Your task to perform on an android device: move a message to another label in the gmail app Image 0: 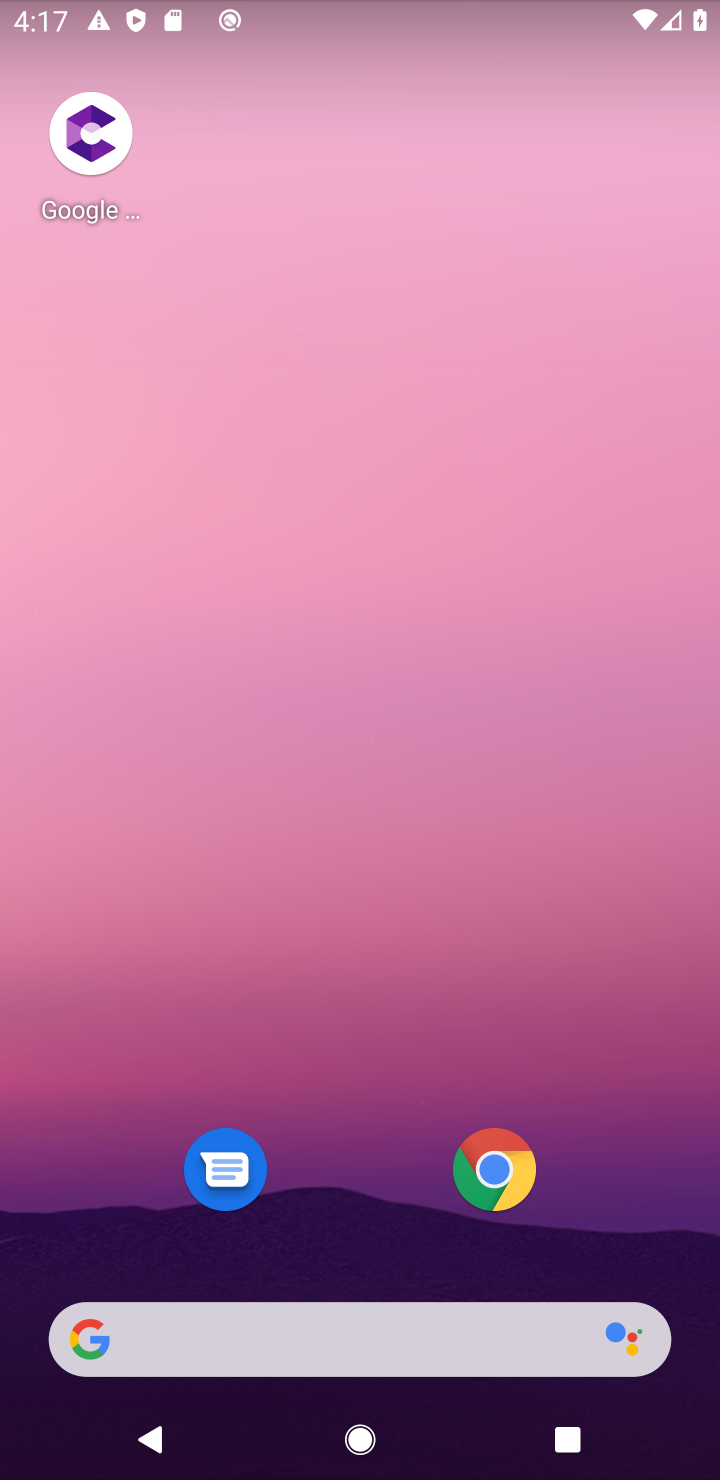
Step 0: drag from (332, 1294) to (427, 225)
Your task to perform on an android device: move a message to another label in the gmail app Image 1: 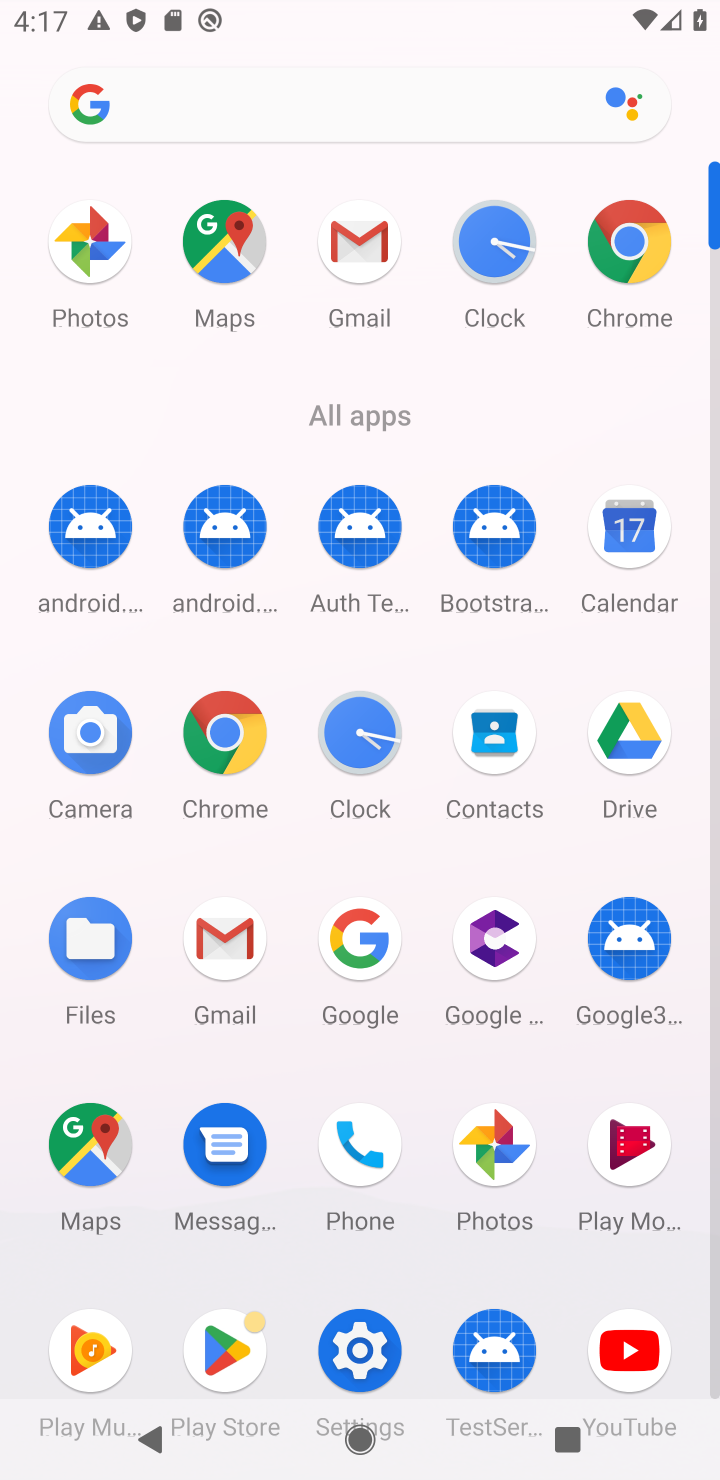
Step 1: click (362, 245)
Your task to perform on an android device: move a message to another label in the gmail app Image 2: 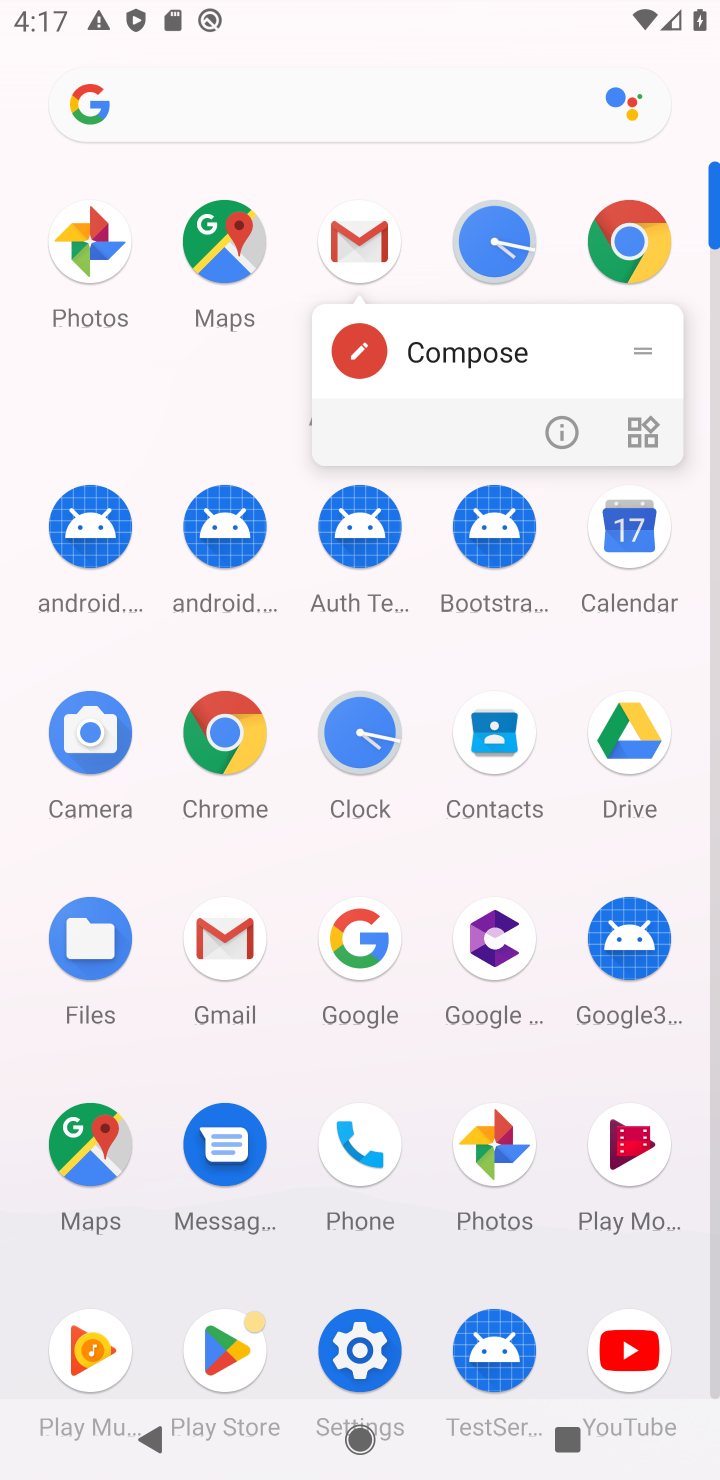
Step 2: click (362, 242)
Your task to perform on an android device: move a message to another label in the gmail app Image 3: 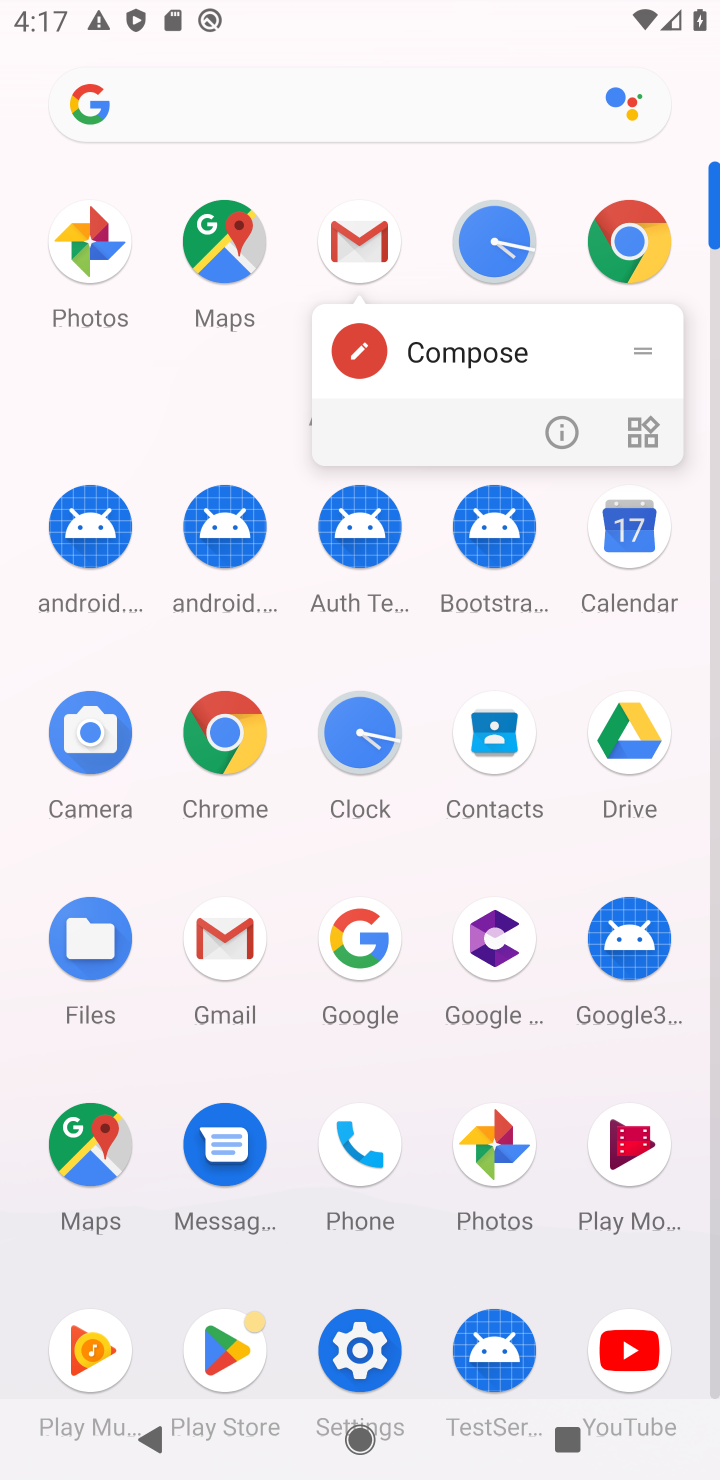
Step 3: click (362, 238)
Your task to perform on an android device: move a message to another label in the gmail app Image 4: 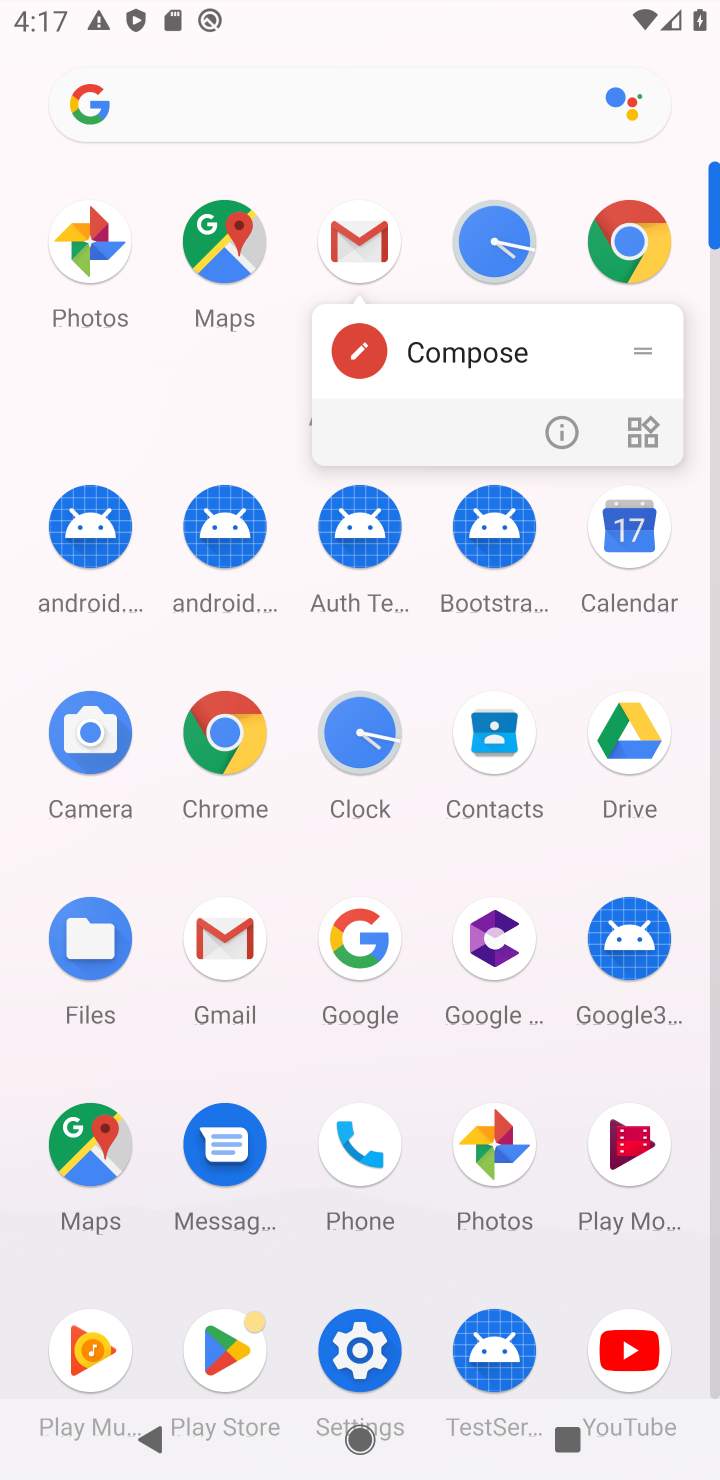
Step 4: click (362, 238)
Your task to perform on an android device: move a message to another label in the gmail app Image 5: 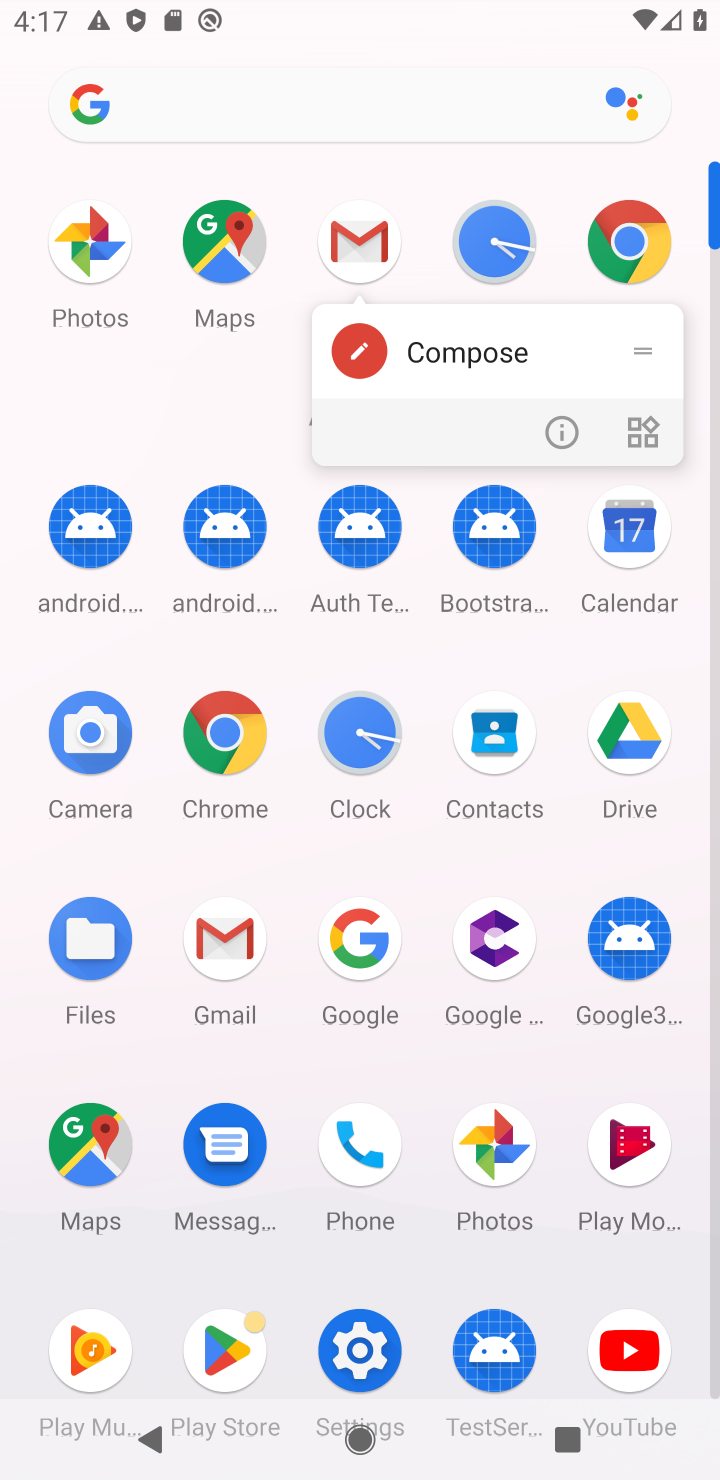
Step 5: click (362, 236)
Your task to perform on an android device: move a message to another label in the gmail app Image 6: 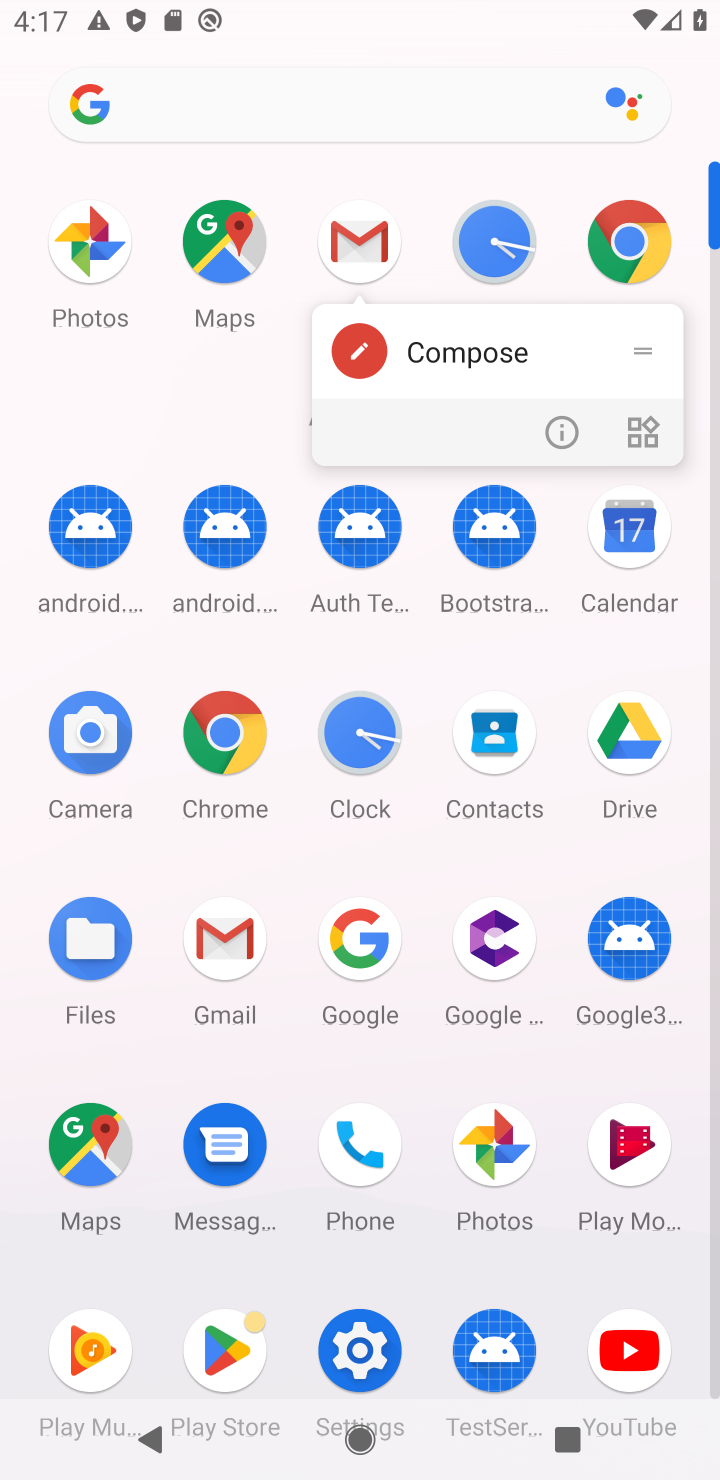
Step 6: click (362, 236)
Your task to perform on an android device: move a message to another label in the gmail app Image 7: 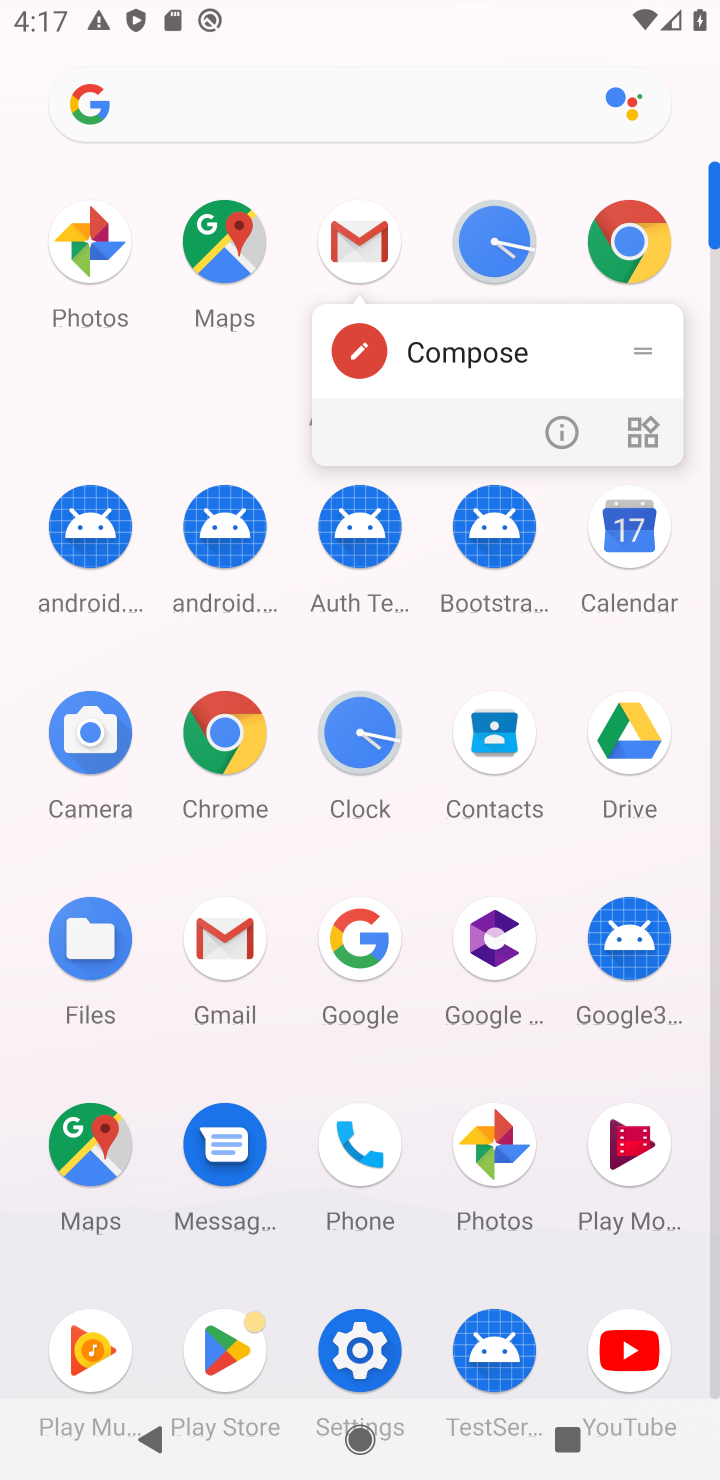
Step 7: click (362, 235)
Your task to perform on an android device: move a message to another label in the gmail app Image 8: 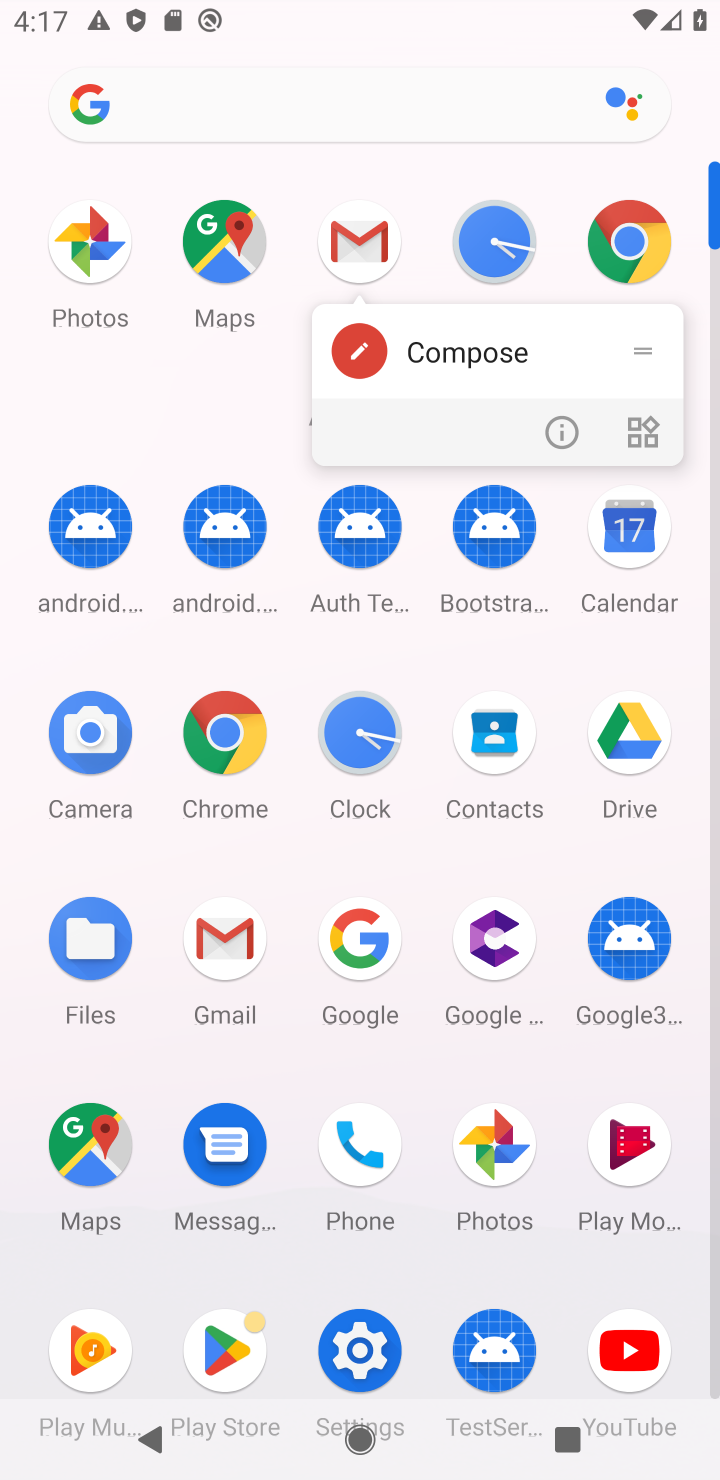
Step 8: click (362, 235)
Your task to perform on an android device: move a message to another label in the gmail app Image 9: 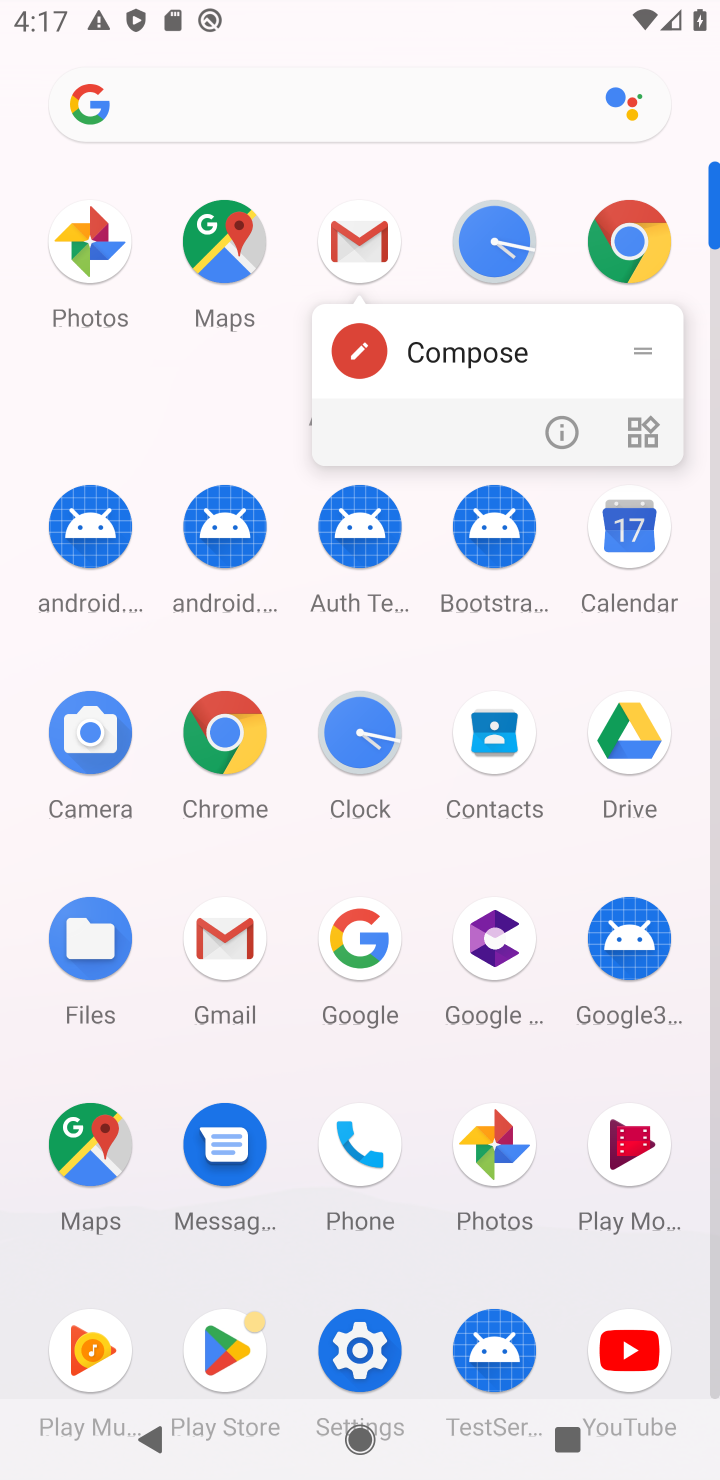
Step 9: click (362, 235)
Your task to perform on an android device: move a message to another label in the gmail app Image 10: 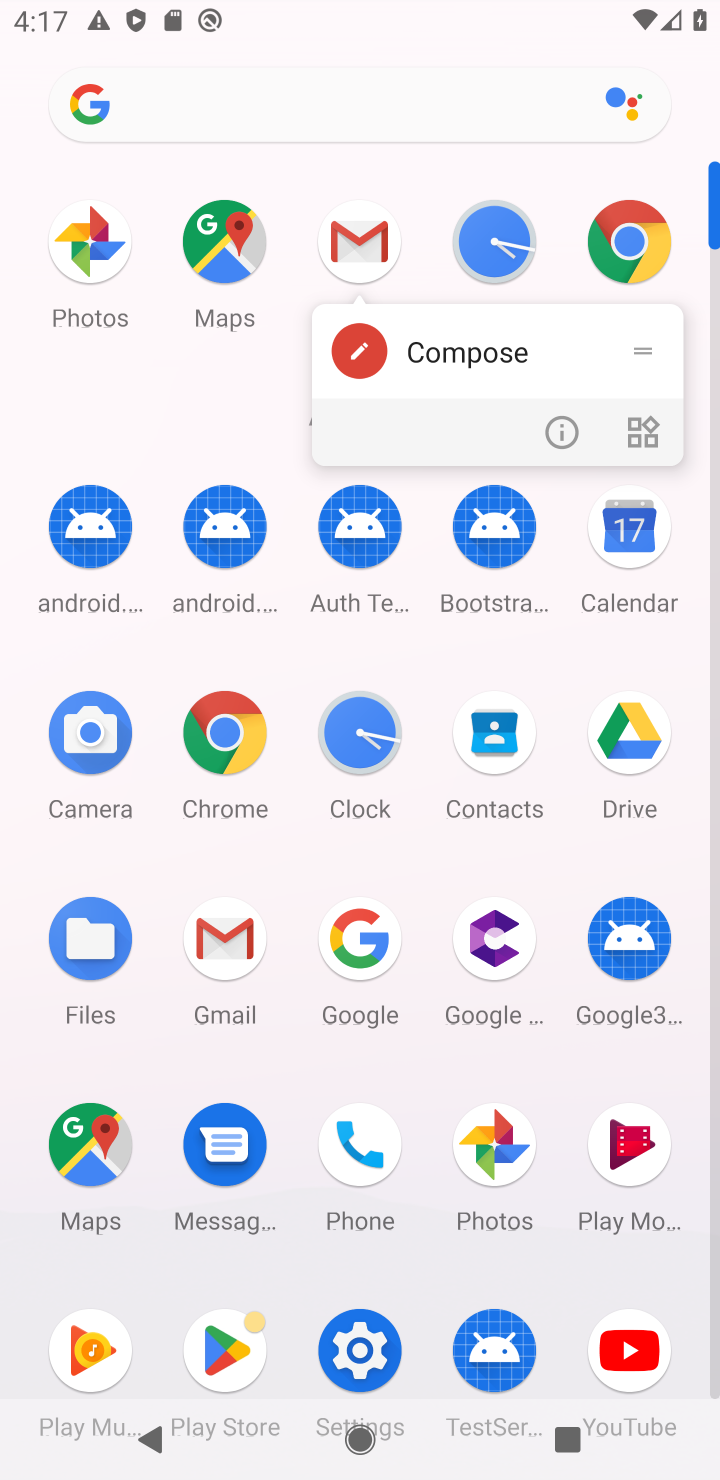
Step 10: click (362, 235)
Your task to perform on an android device: move a message to another label in the gmail app Image 11: 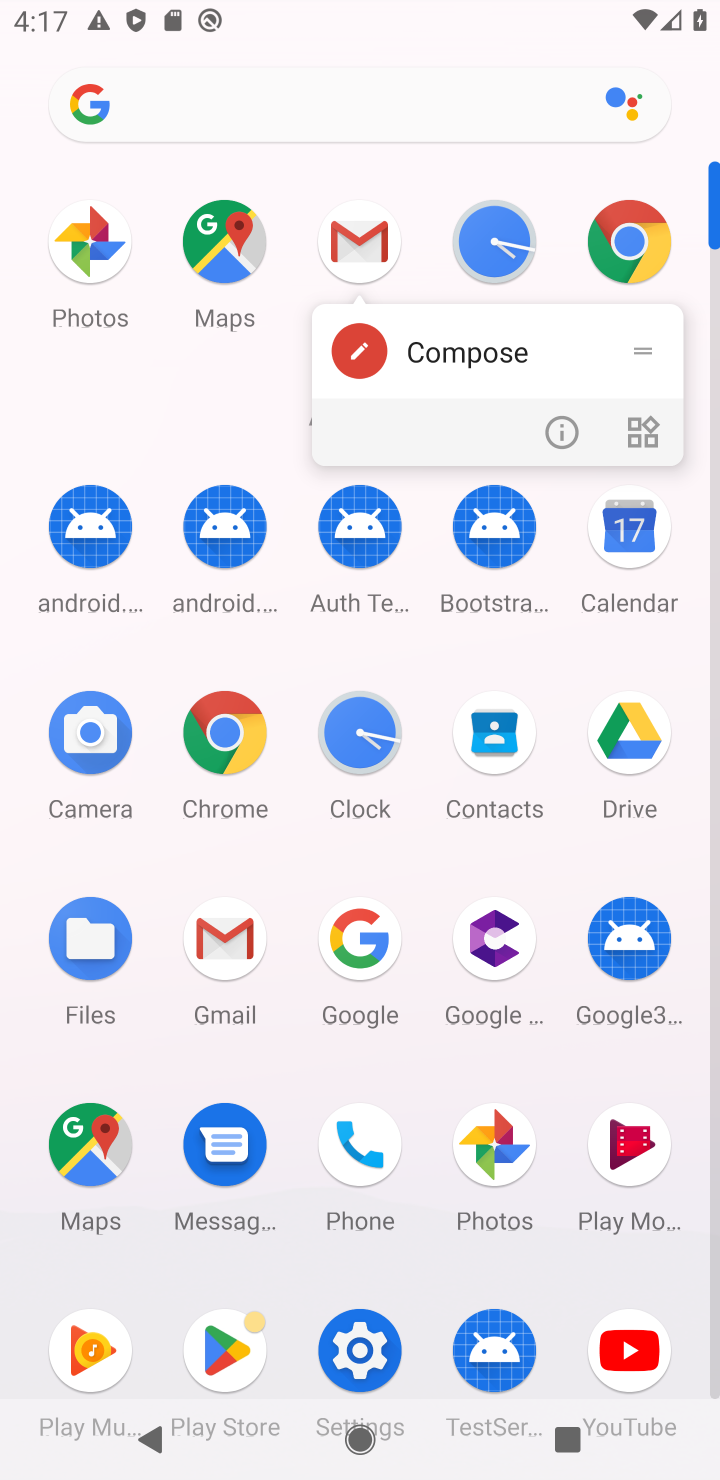
Step 11: click (362, 235)
Your task to perform on an android device: move a message to another label in the gmail app Image 12: 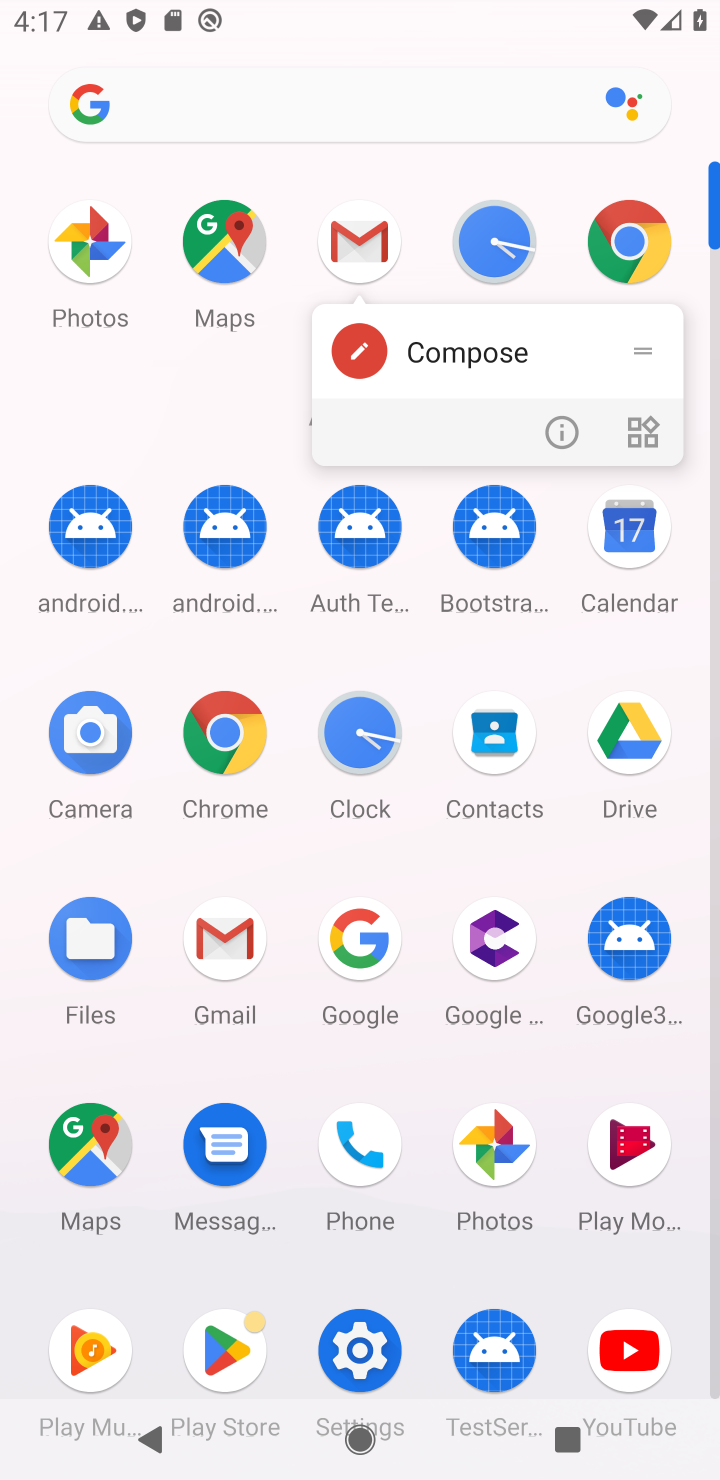
Step 12: click (362, 235)
Your task to perform on an android device: move a message to another label in the gmail app Image 13: 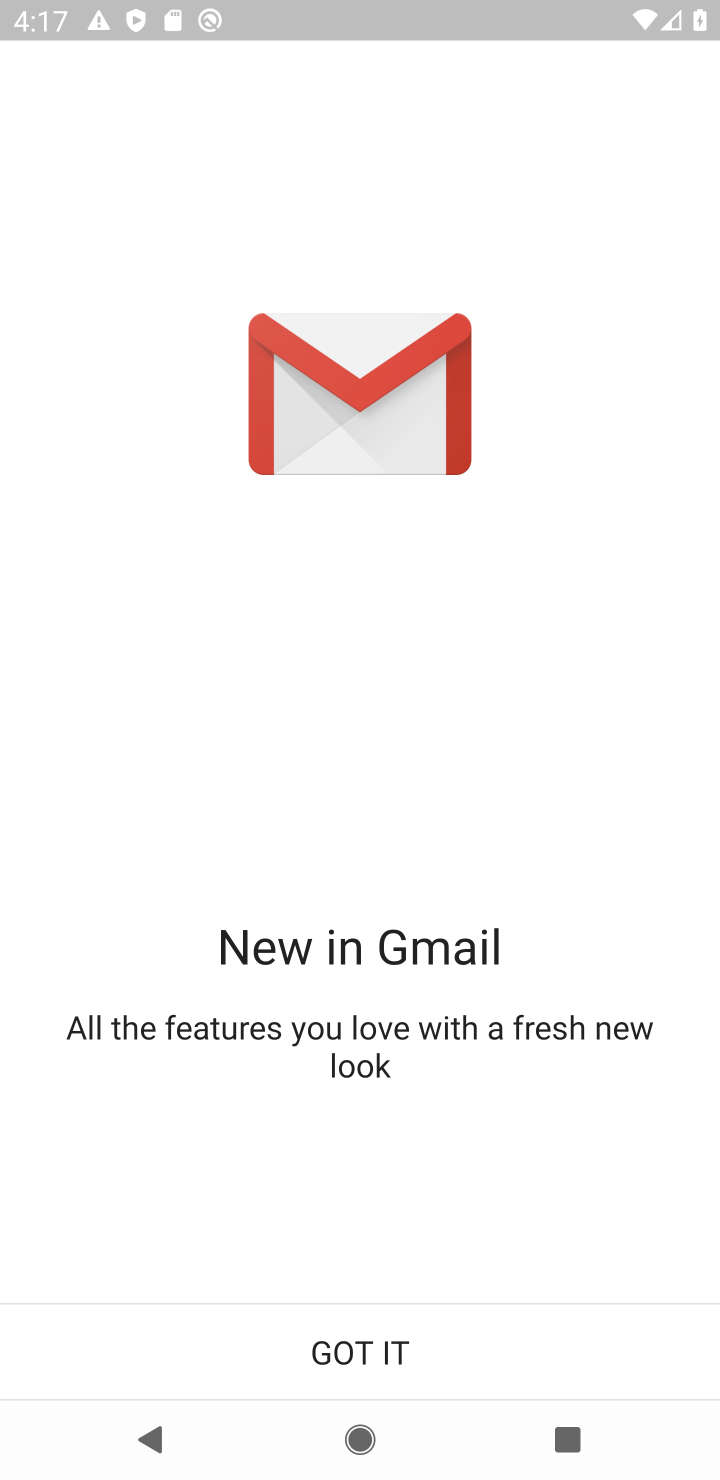
Step 13: click (382, 1347)
Your task to perform on an android device: move a message to another label in the gmail app Image 14: 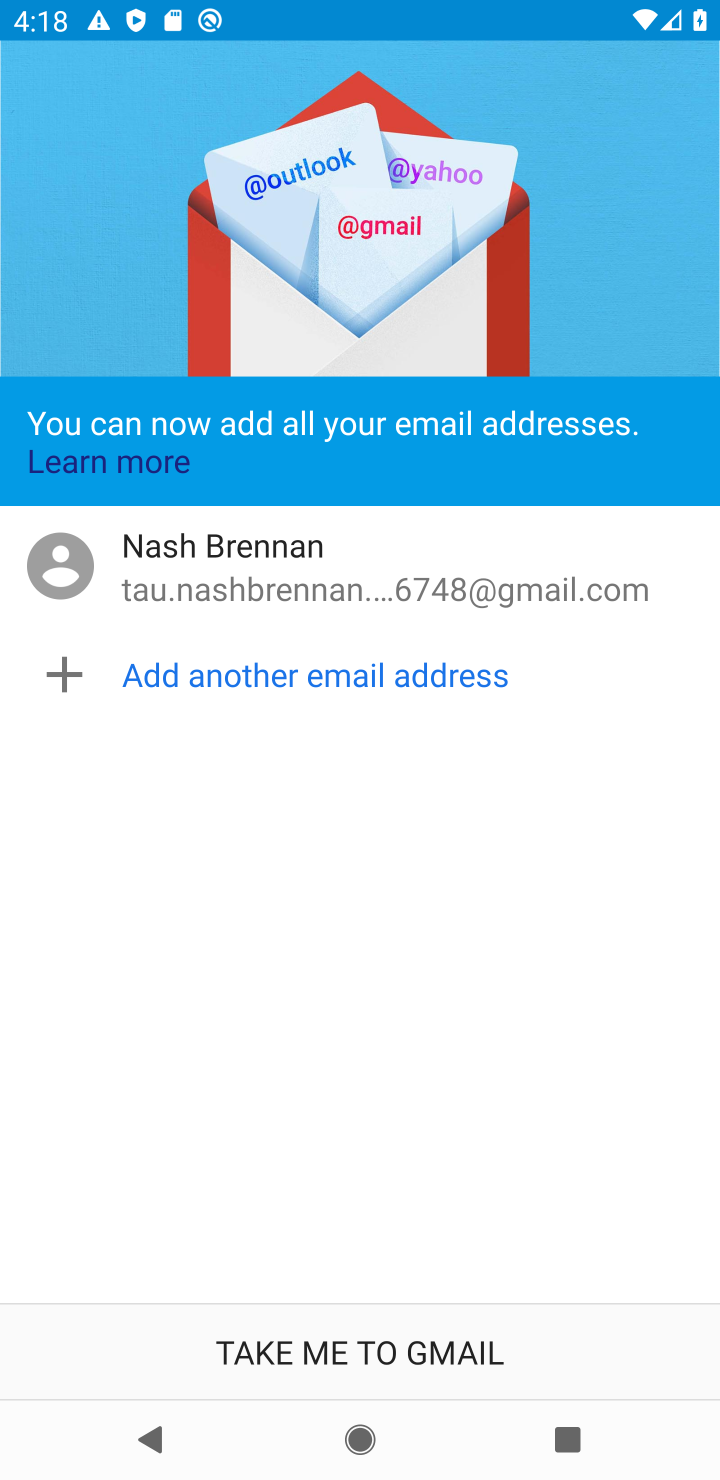
Step 14: click (382, 1347)
Your task to perform on an android device: move a message to another label in the gmail app Image 15: 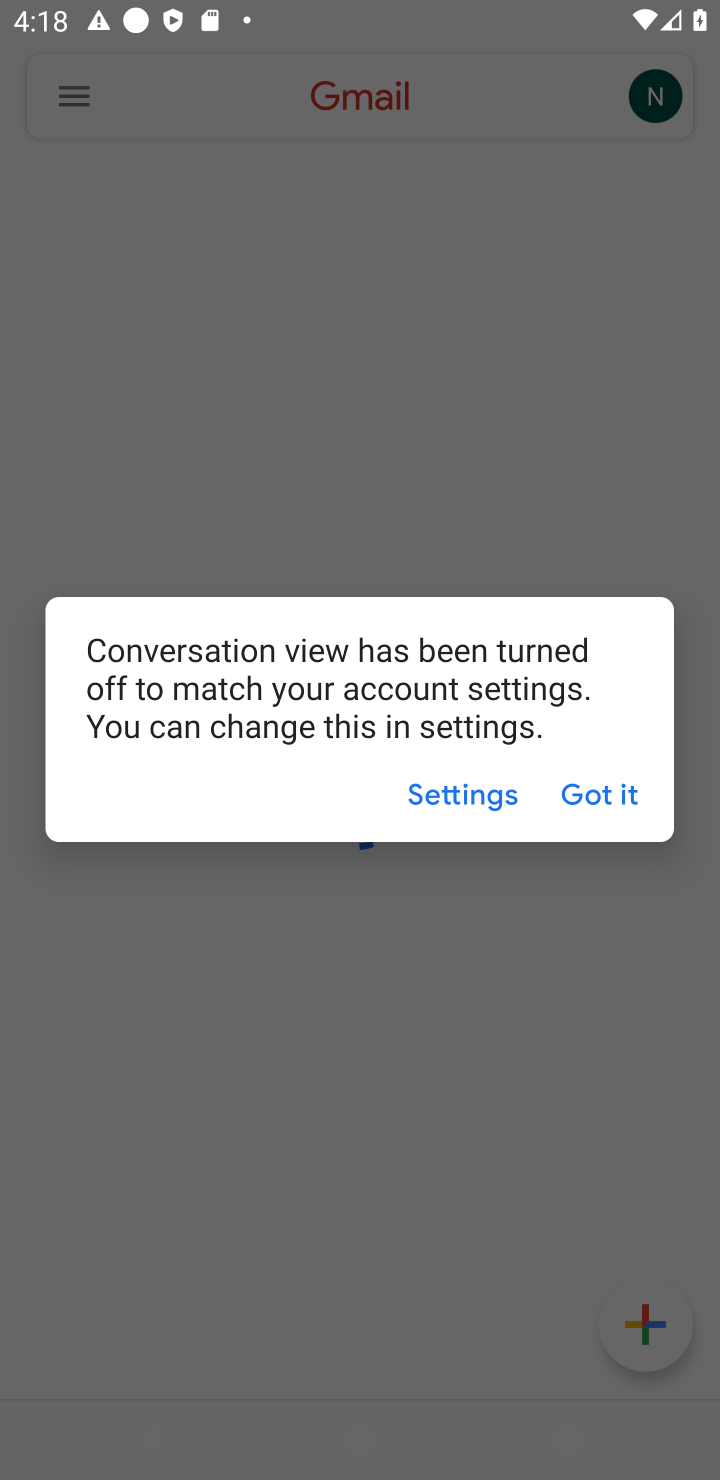
Step 15: click (584, 786)
Your task to perform on an android device: move a message to another label in the gmail app Image 16: 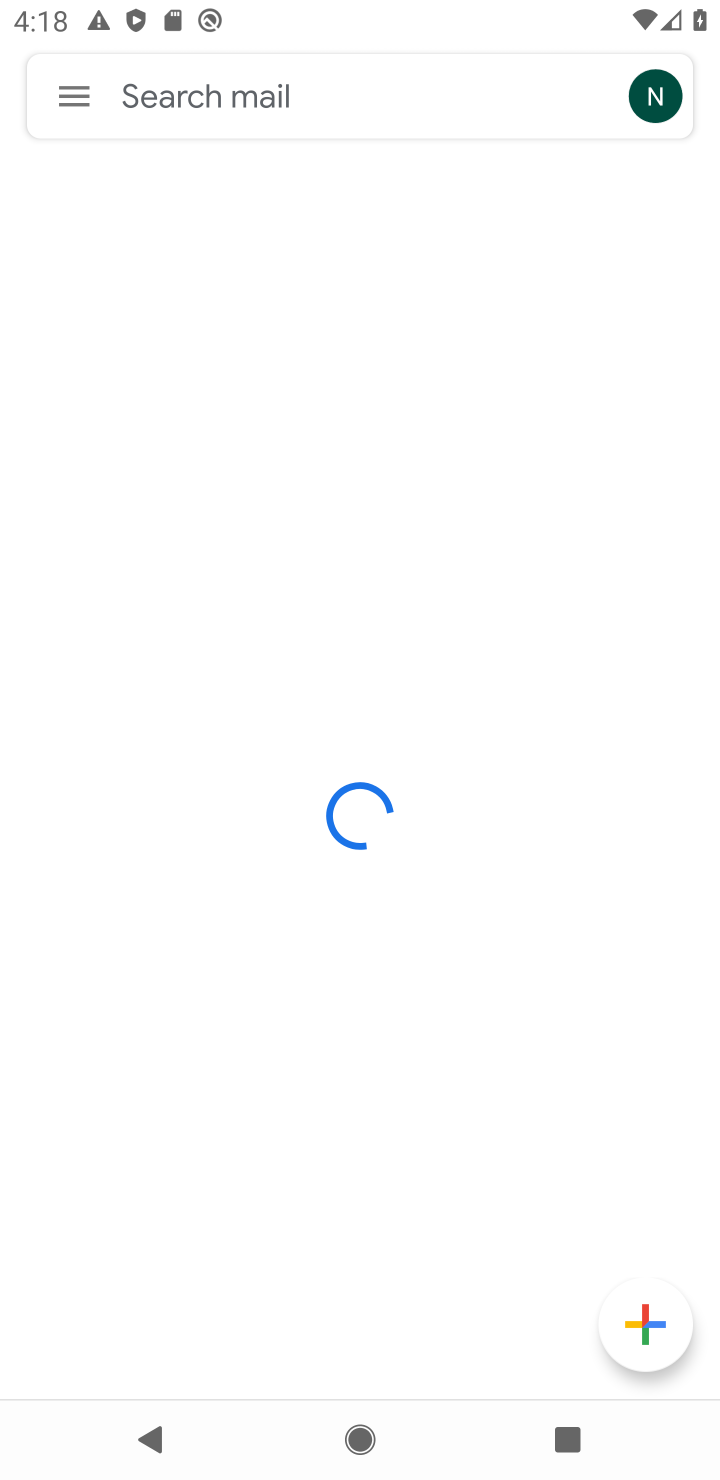
Step 16: click (63, 94)
Your task to perform on an android device: move a message to another label in the gmail app Image 17: 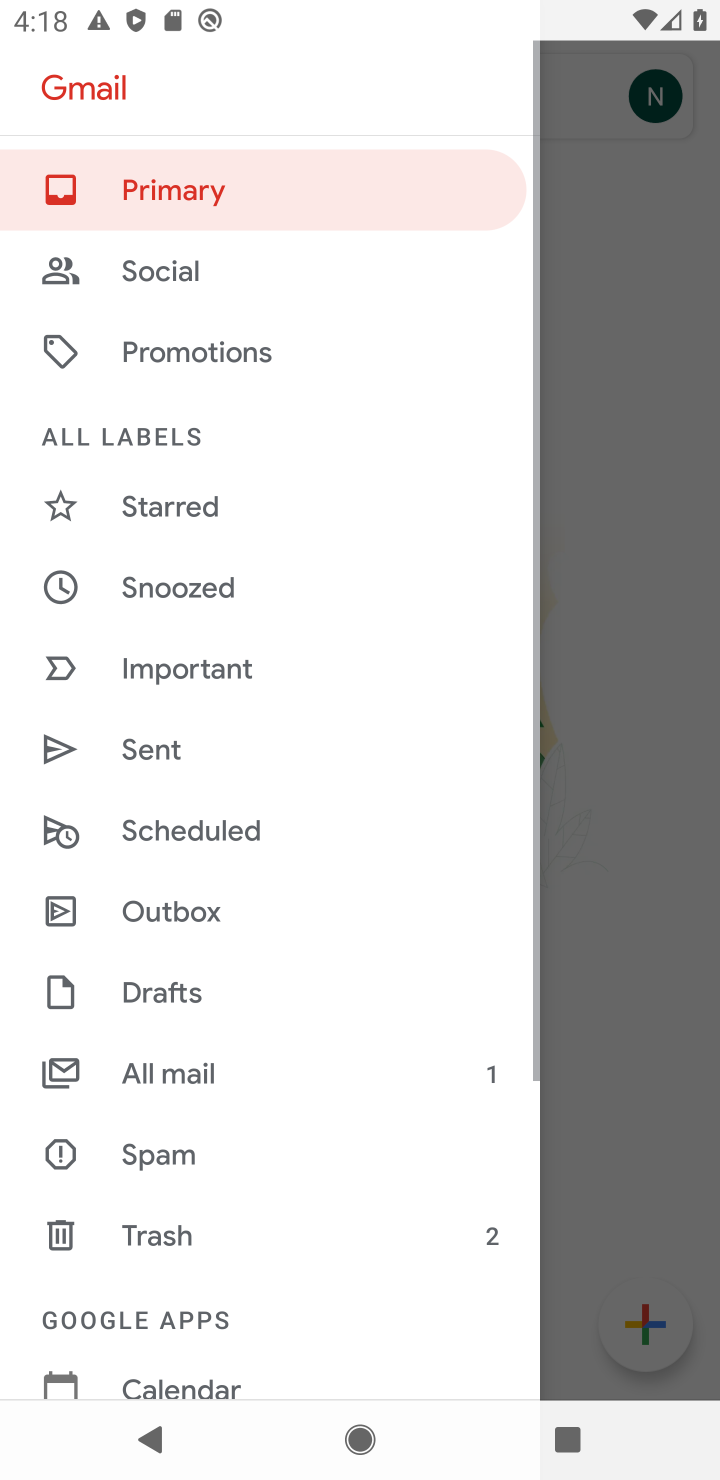
Step 17: click (181, 1058)
Your task to perform on an android device: move a message to another label in the gmail app Image 18: 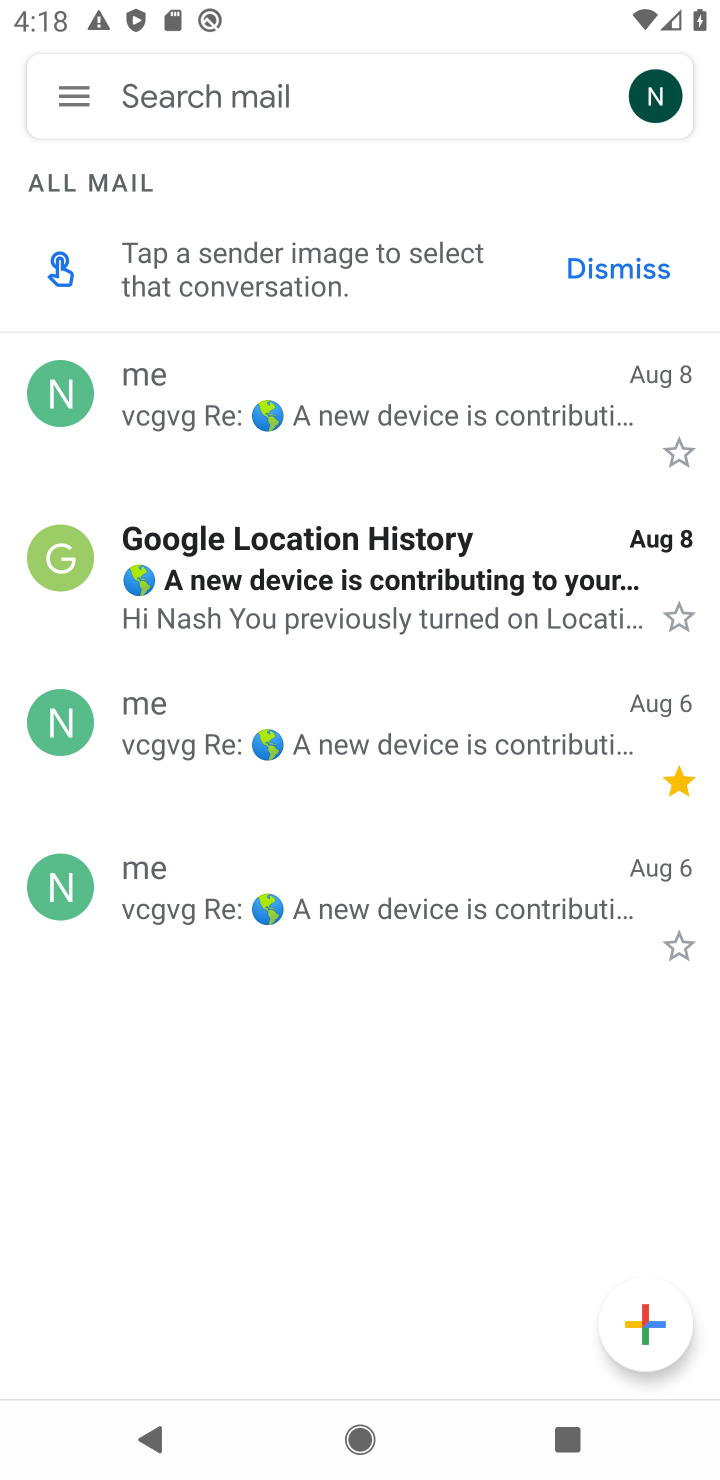
Step 18: click (472, 410)
Your task to perform on an android device: move a message to another label in the gmail app Image 19: 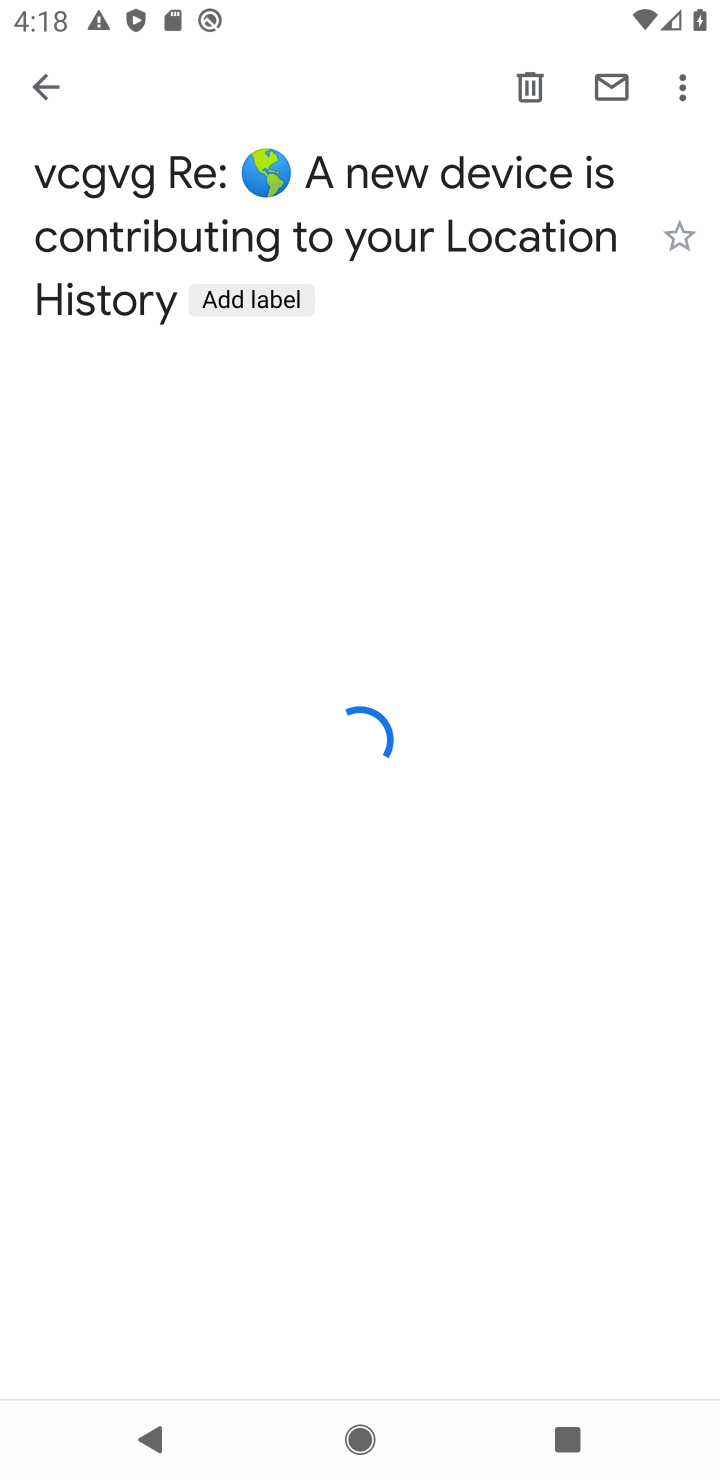
Step 19: click (687, 84)
Your task to perform on an android device: move a message to another label in the gmail app Image 20: 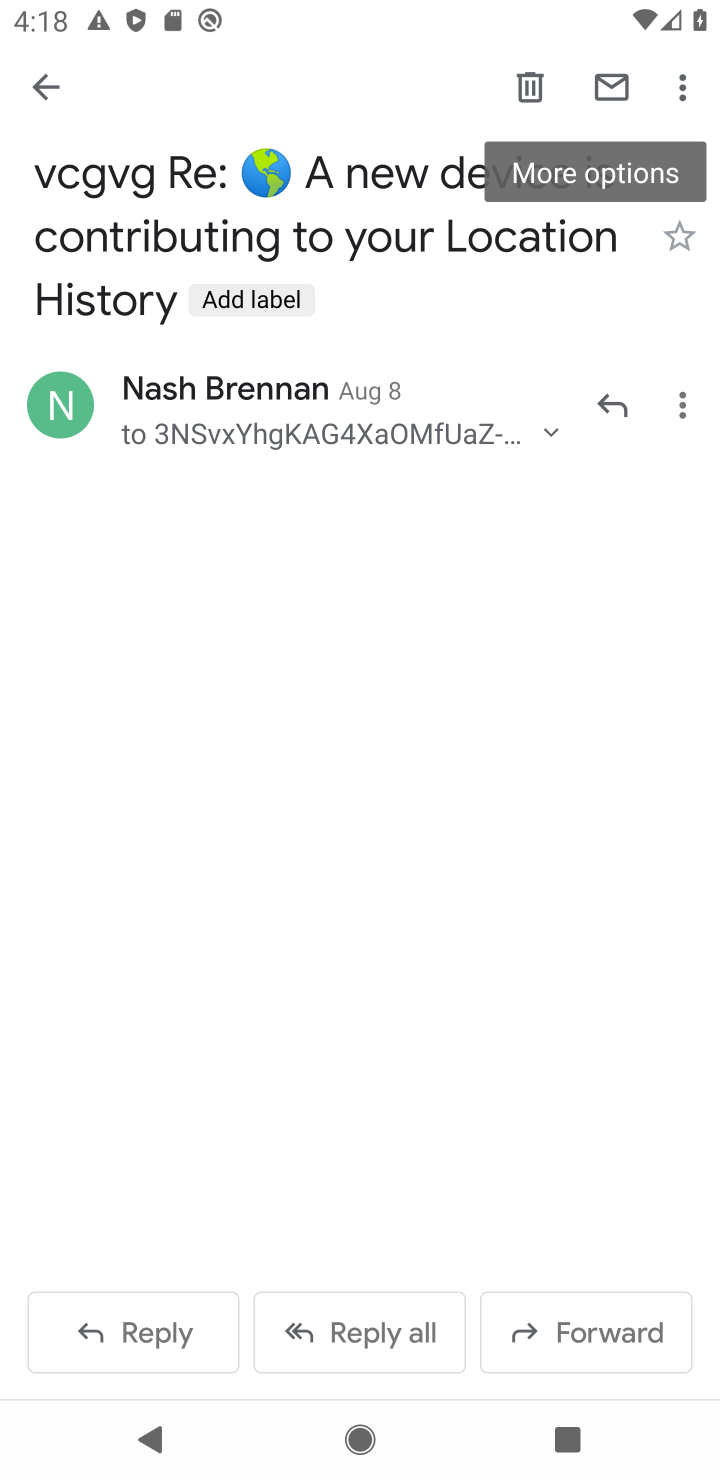
Step 20: click (686, 100)
Your task to perform on an android device: move a message to another label in the gmail app Image 21: 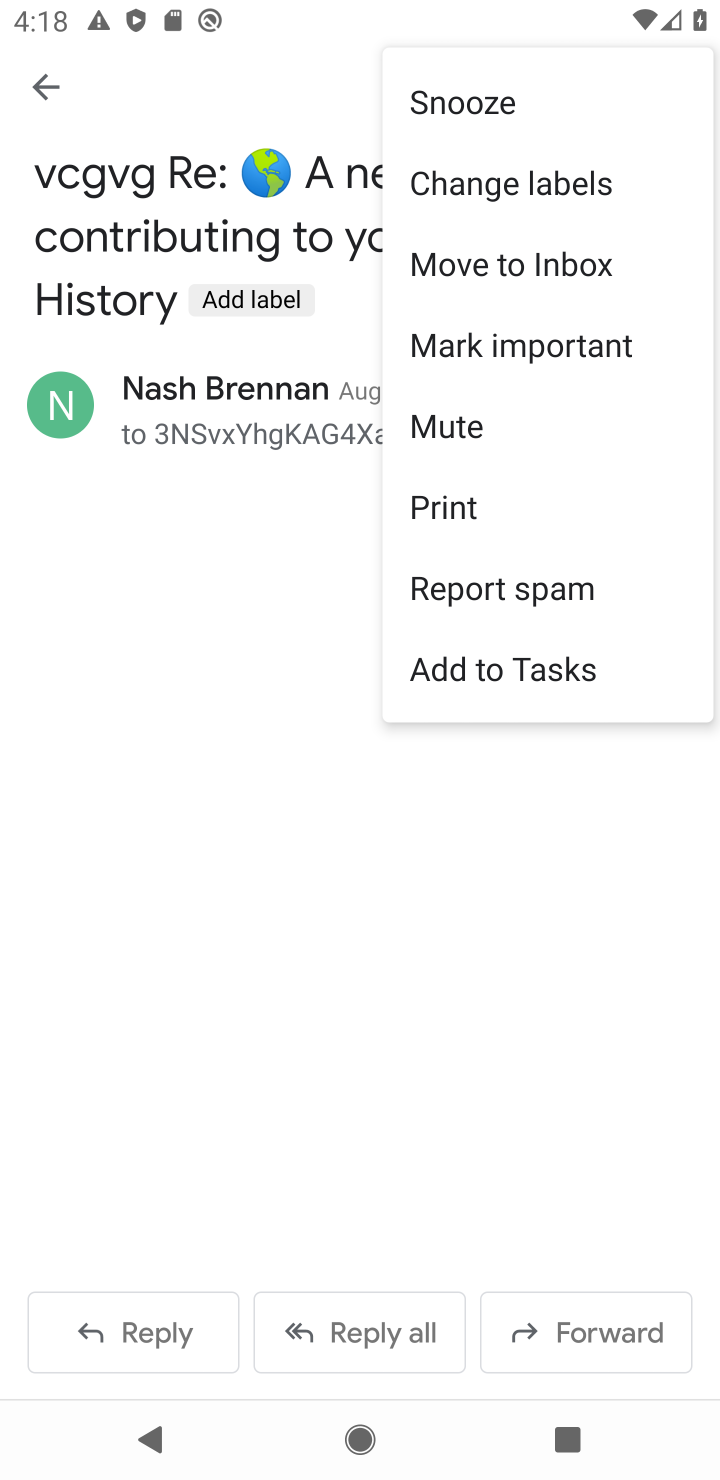
Step 21: click (536, 202)
Your task to perform on an android device: move a message to another label in the gmail app Image 22: 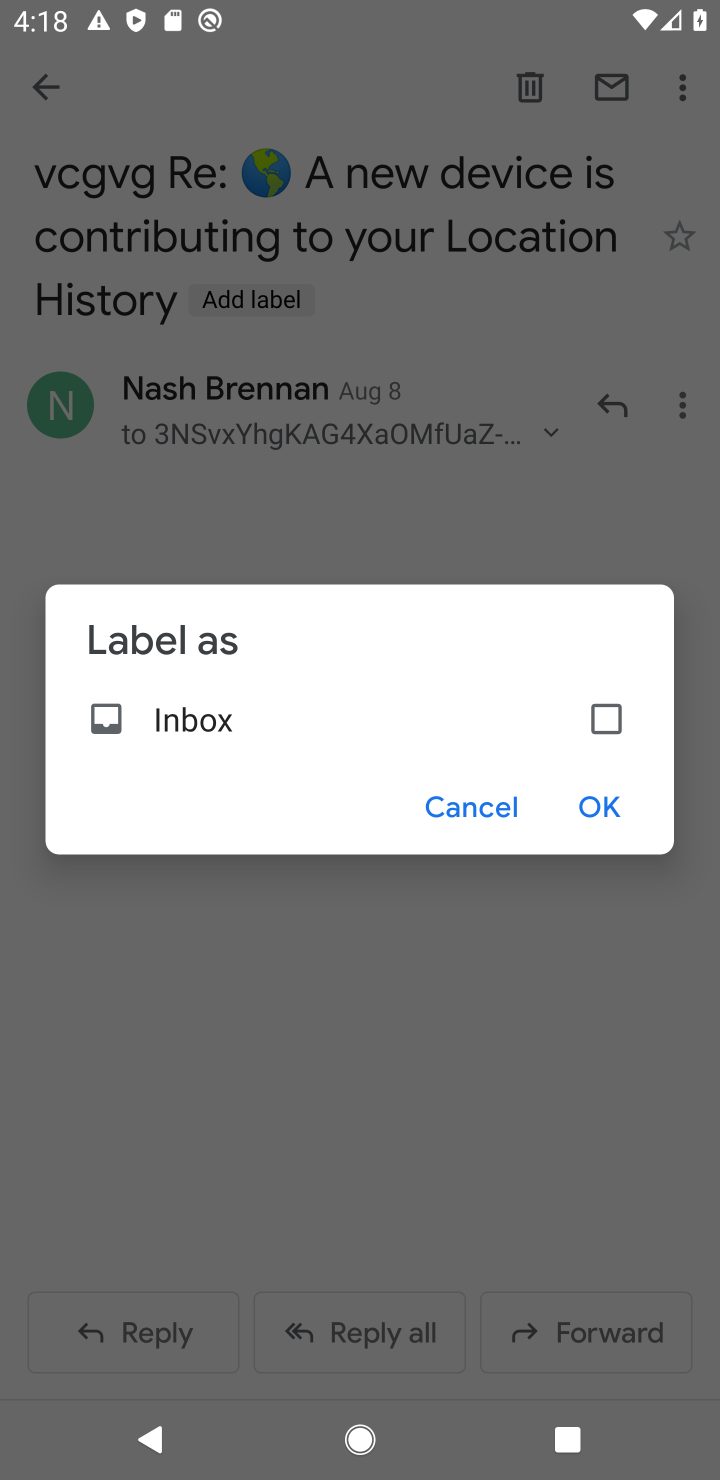
Step 22: click (615, 728)
Your task to perform on an android device: move a message to another label in the gmail app Image 23: 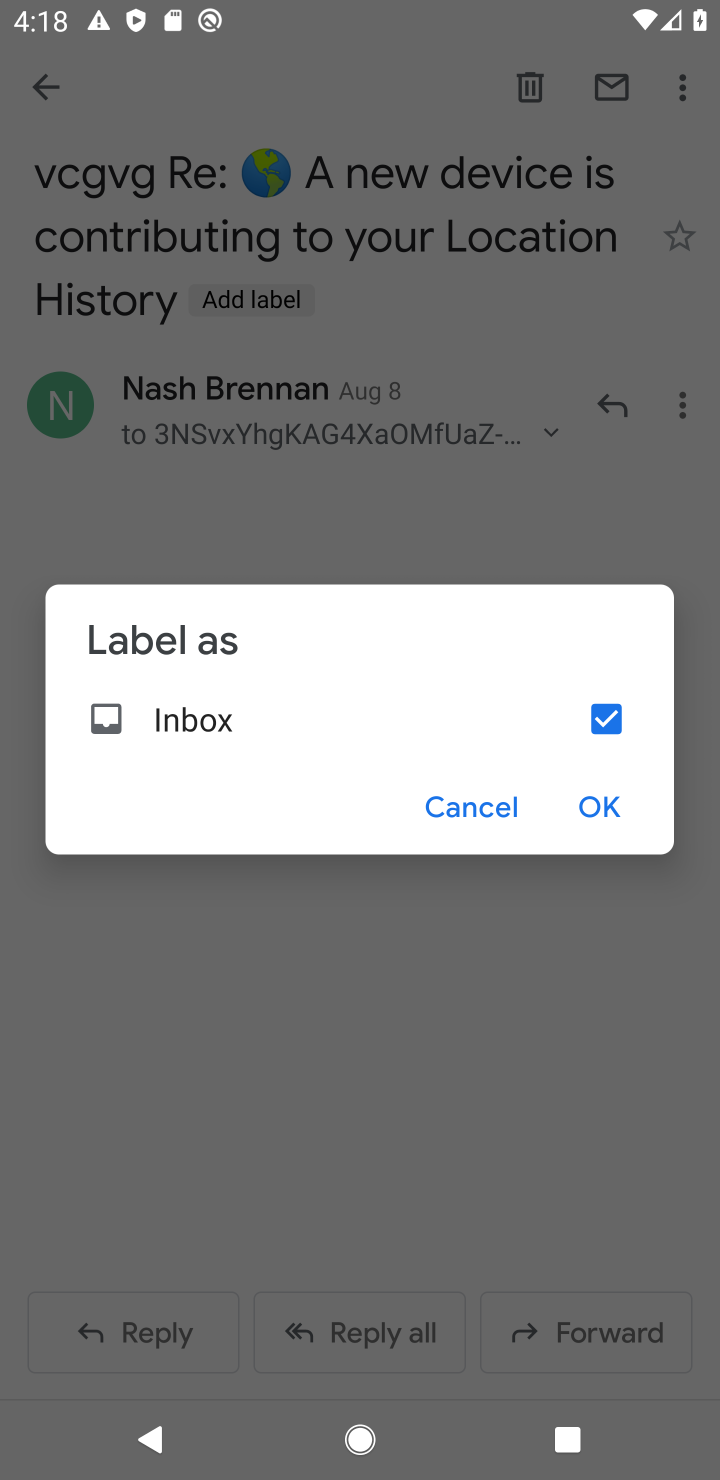
Step 23: click (611, 807)
Your task to perform on an android device: move a message to another label in the gmail app Image 24: 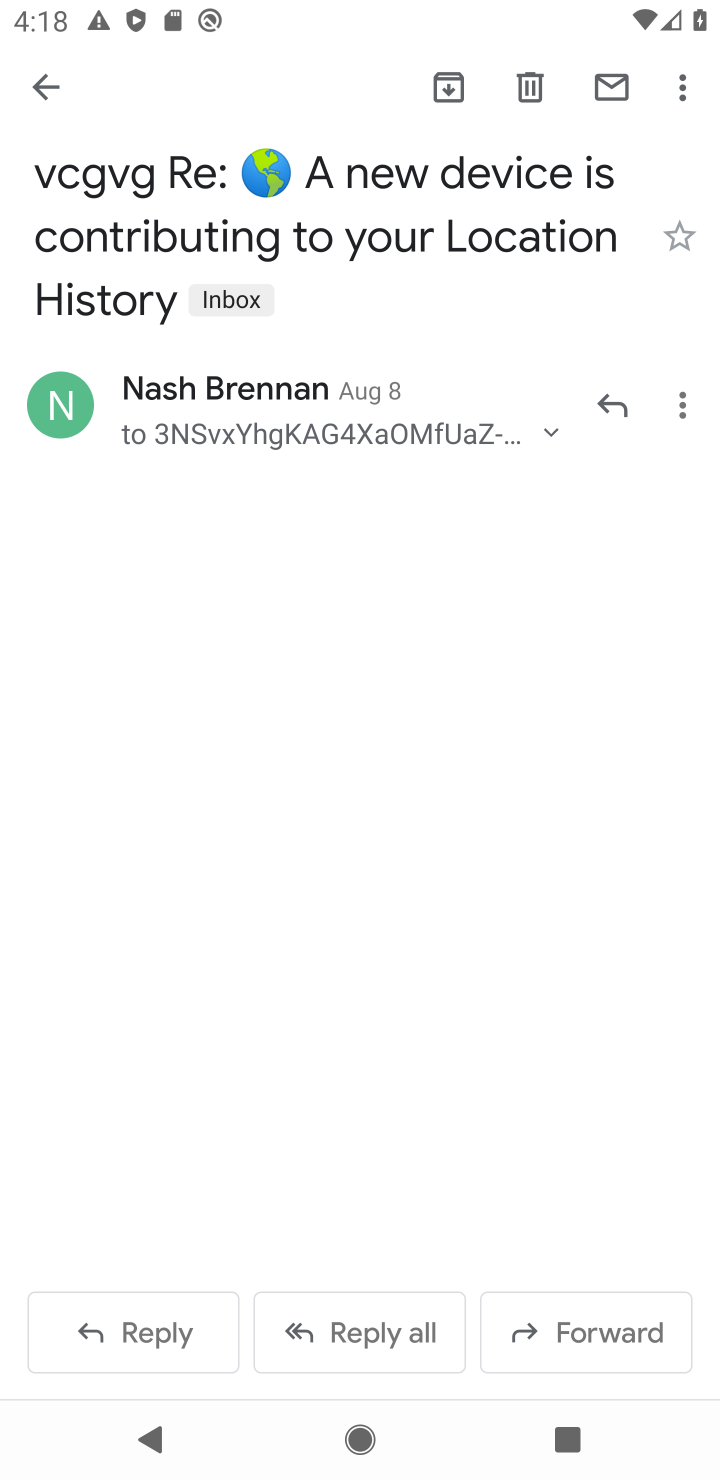
Step 24: task complete